Your task to perform on an android device: Search for vegetarian restaurants on Maps Image 0: 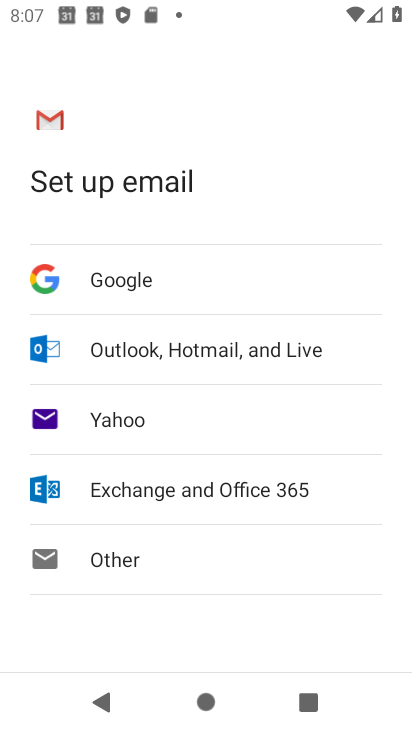
Step 0: press home button
Your task to perform on an android device: Search for vegetarian restaurants on Maps Image 1: 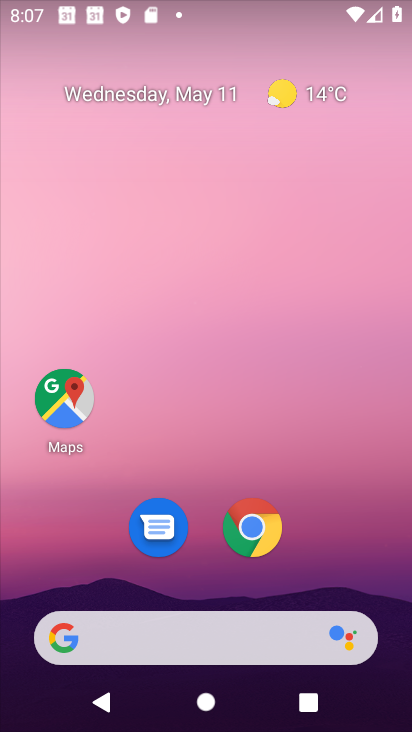
Step 1: click (14, 368)
Your task to perform on an android device: Search for vegetarian restaurants on Maps Image 2: 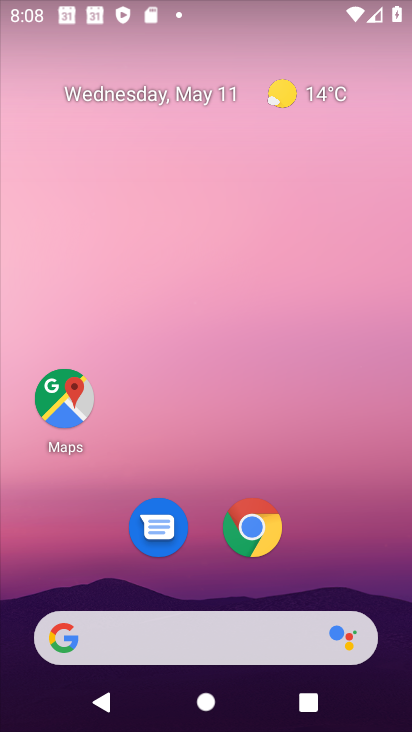
Step 2: click (42, 381)
Your task to perform on an android device: Search for vegetarian restaurants on Maps Image 3: 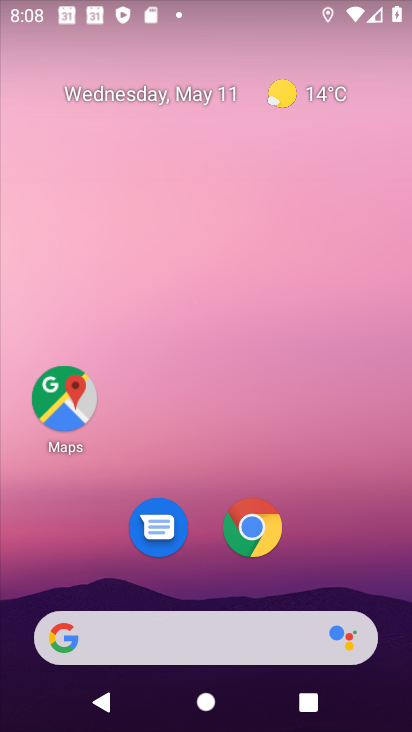
Step 3: click (42, 381)
Your task to perform on an android device: Search for vegetarian restaurants on Maps Image 4: 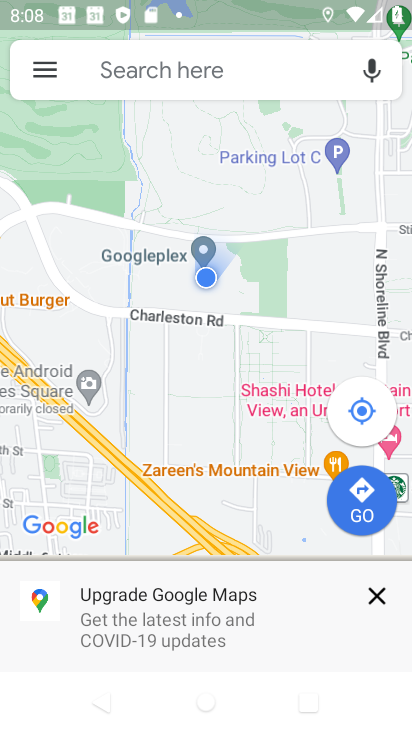
Step 4: click (144, 86)
Your task to perform on an android device: Search for vegetarian restaurants on Maps Image 5: 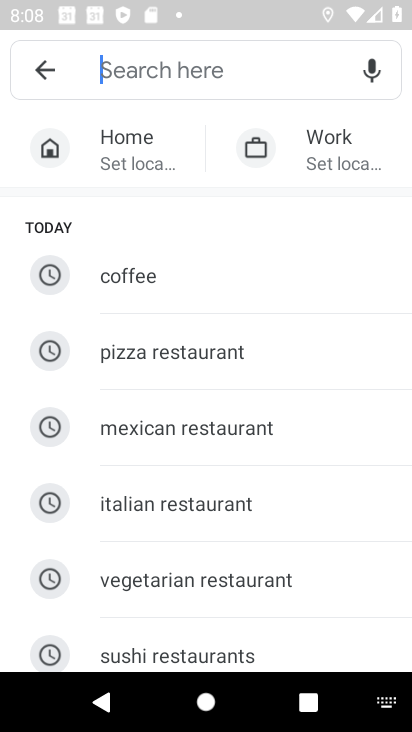
Step 5: click (177, 597)
Your task to perform on an android device: Search for vegetarian restaurants on Maps Image 6: 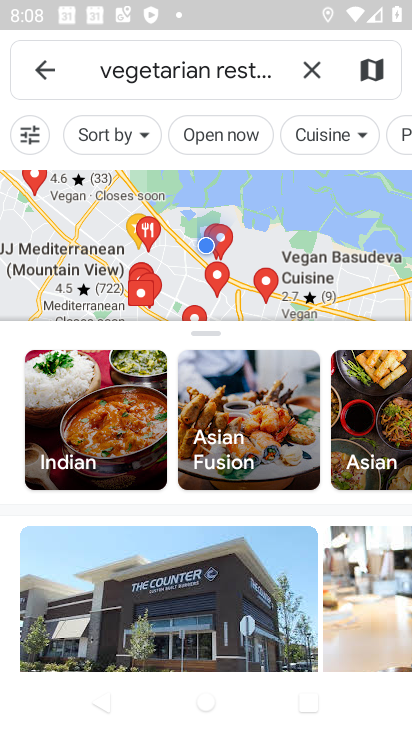
Step 6: task complete